Your task to perform on an android device: Go to wifi settings Image 0: 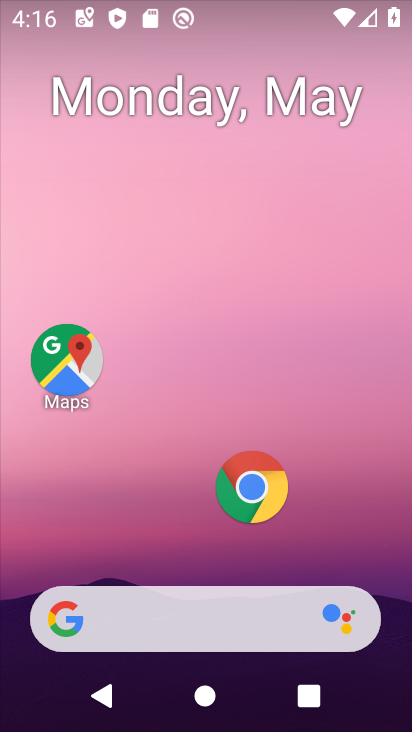
Step 0: drag from (159, 677) to (270, 48)
Your task to perform on an android device: Go to wifi settings Image 1: 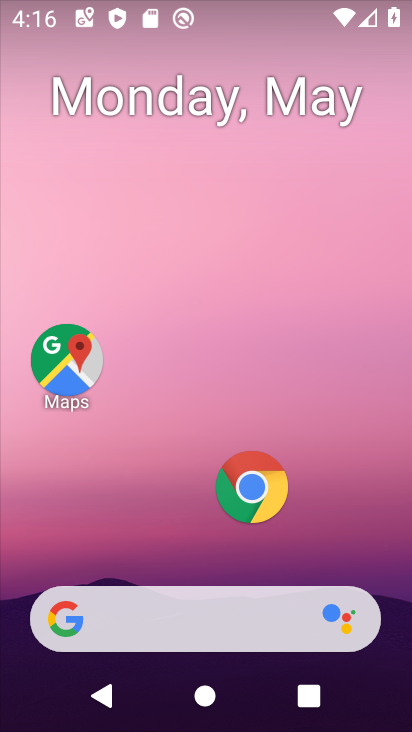
Step 1: drag from (167, 727) to (202, 22)
Your task to perform on an android device: Go to wifi settings Image 2: 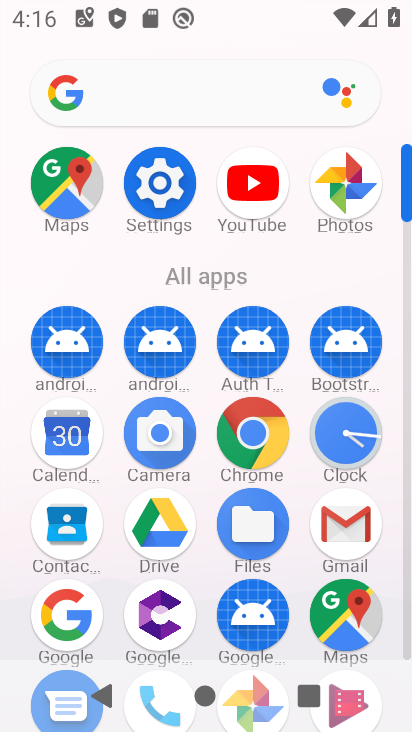
Step 2: click (162, 203)
Your task to perform on an android device: Go to wifi settings Image 3: 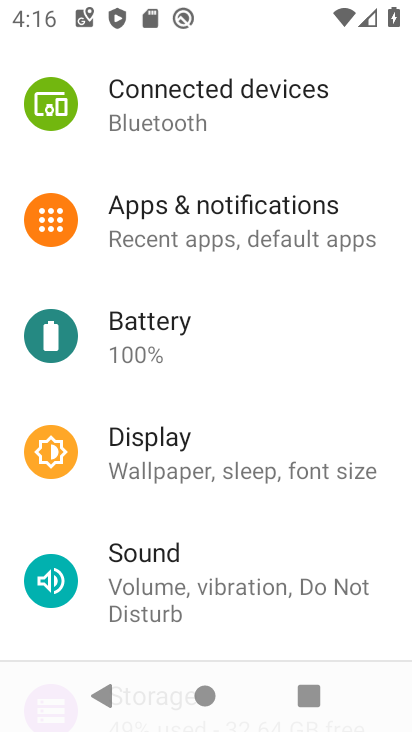
Step 3: drag from (305, 146) to (309, 570)
Your task to perform on an android device: Go to wifi settings Image 4: 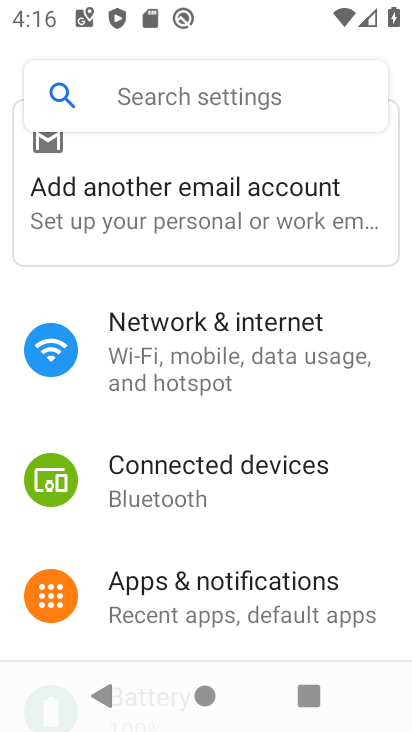
Step 4: click (279, 387)
Your task to perform on an android device: Go to wifi settings Image 5: 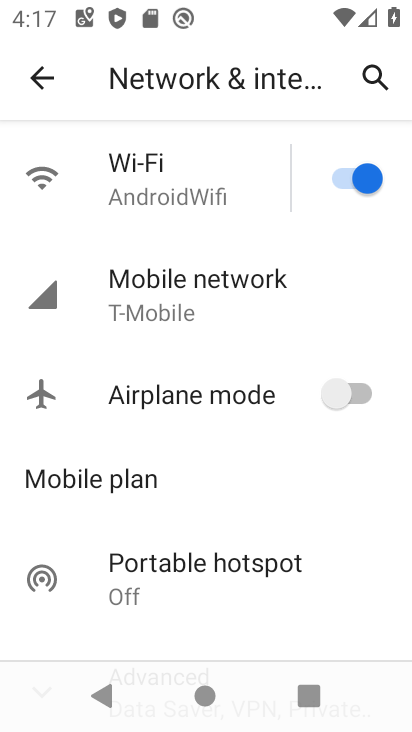
Step 5: click (117, 155)
Your task to perform on an android device: Go to wifi settings Image 6: 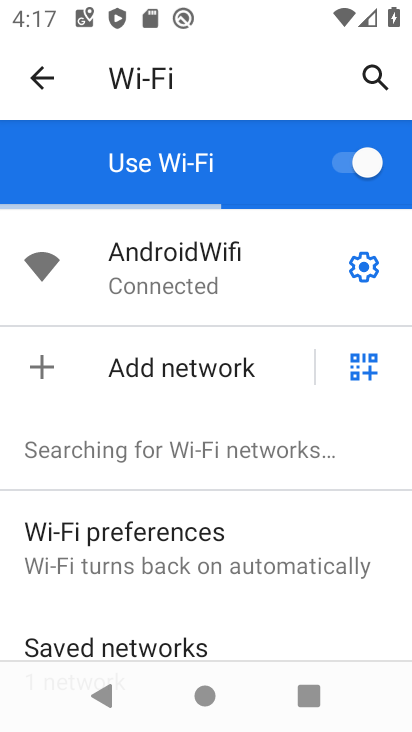
Step 6: task complete